Your task to perform on an android device: Show the shopping cart on costco. Image 0: 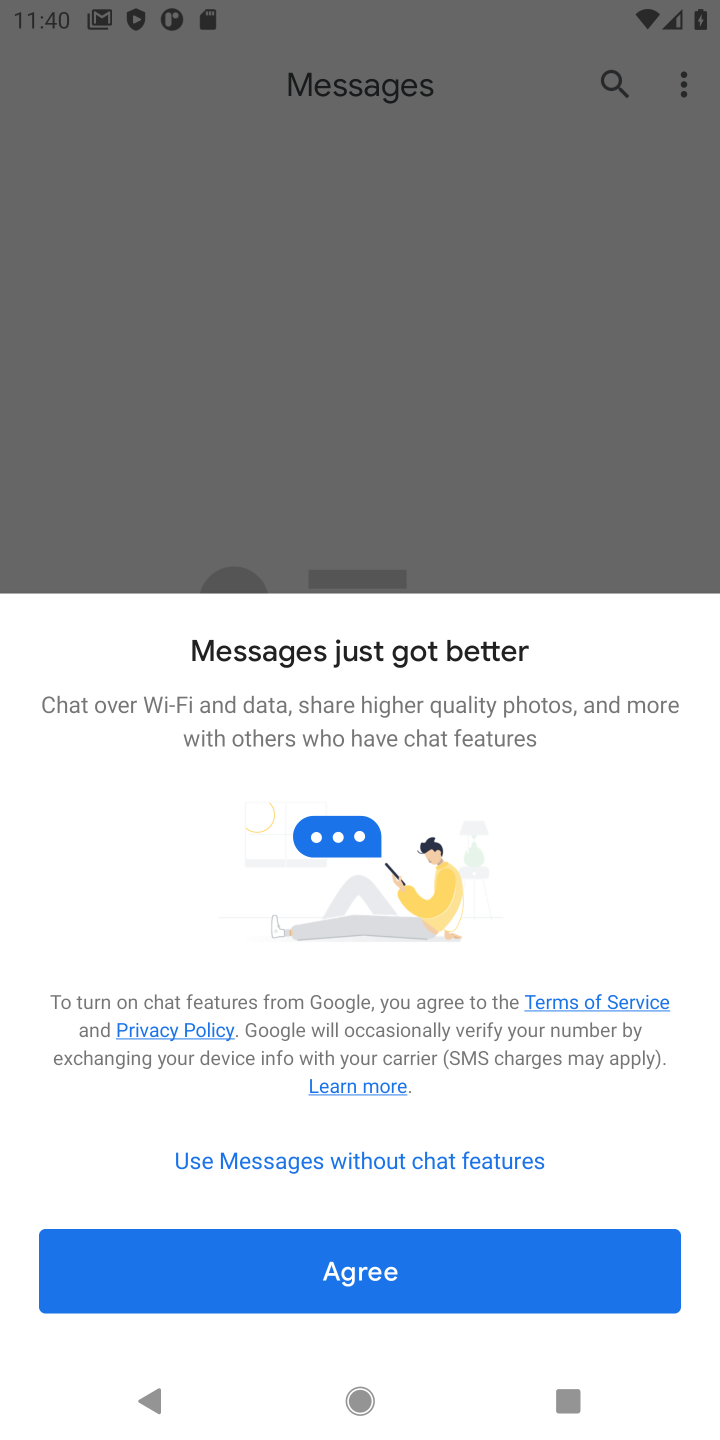
Step 0: press home button
Your task to perform on an android device: Show the shopping cart on costco. Image 1: 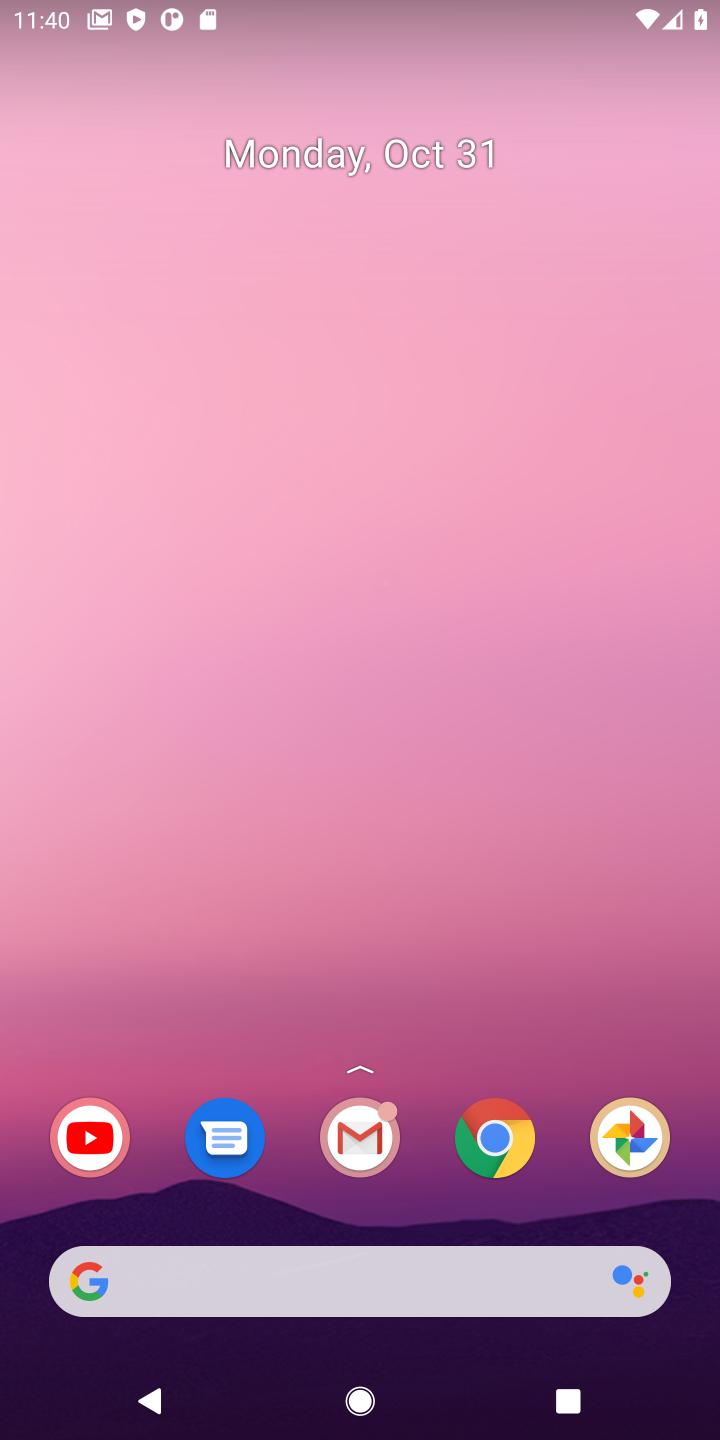
Step 1: click (506, 1136)
Your task to perform on an android device: Show the shopping cart on costco. Image 2: 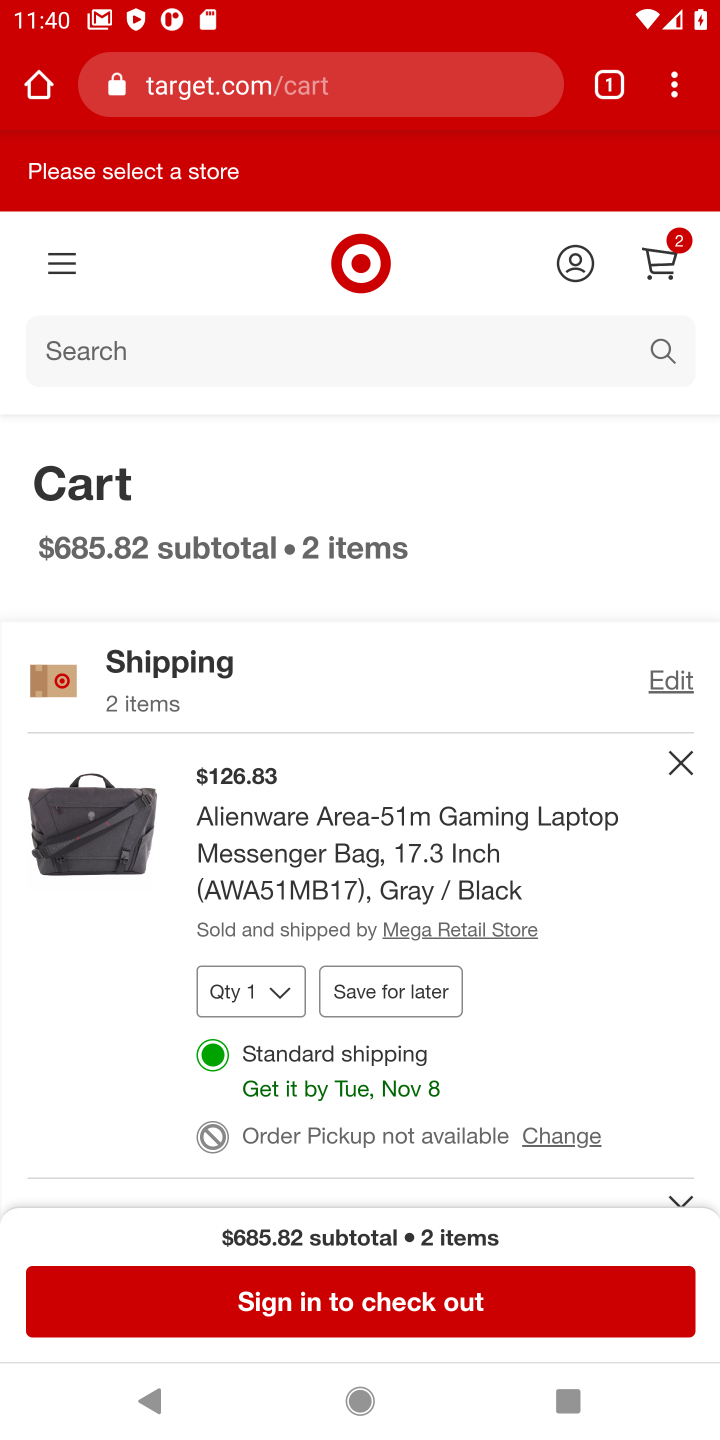
Step 2: click (341, 86)
Your task to perform on an android device: Show the shopping cart on costco. Image 3: 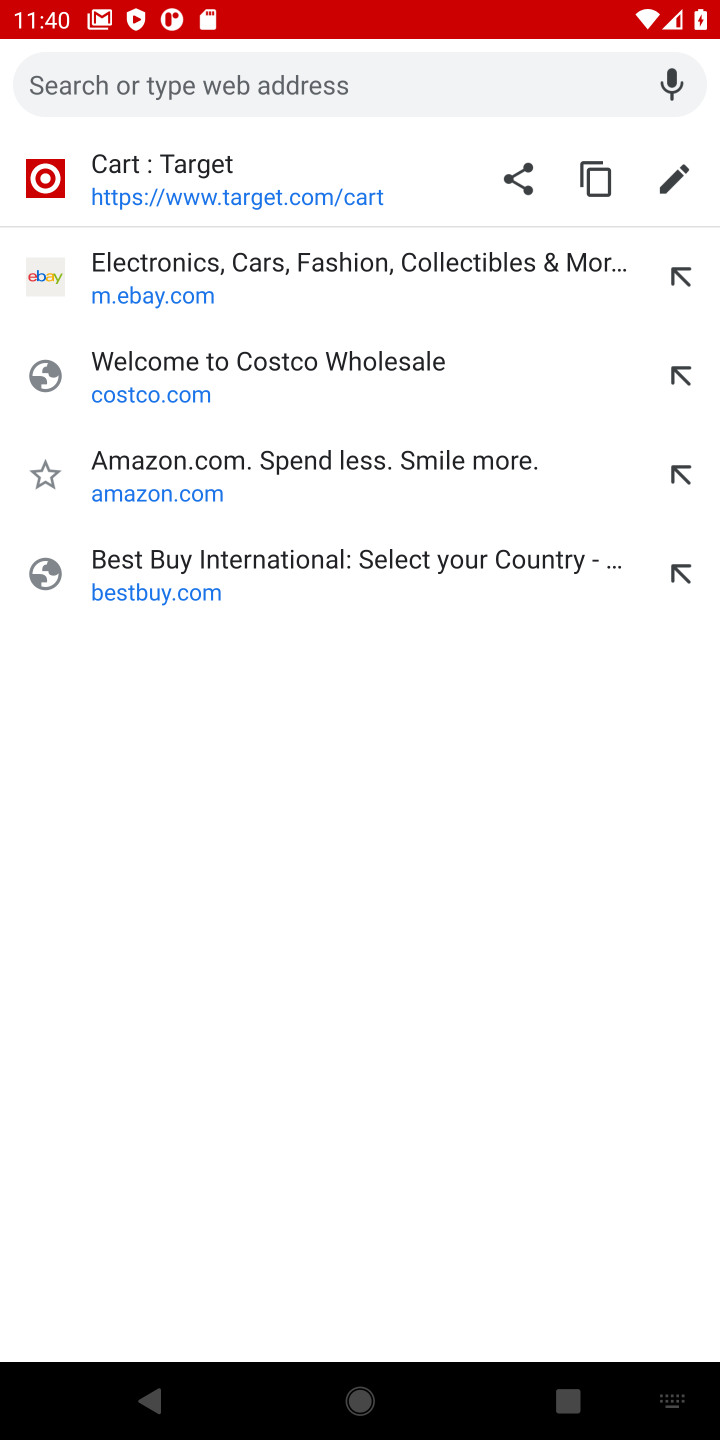
Step 3: type "costco"
Your task to perform on an android device: Show the shopping cart on costco. Image 4: 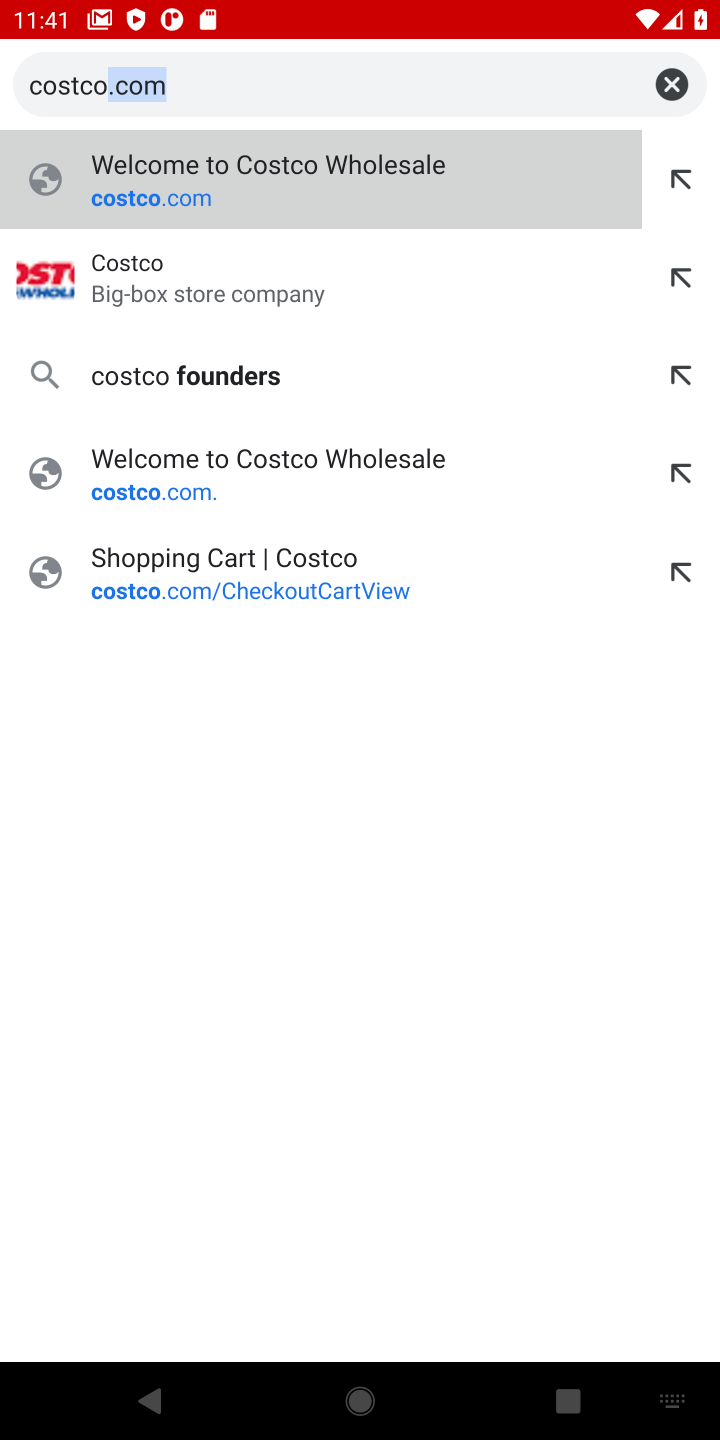
Step 4: click (173, 300)
Your task to perform on an android device: Show the shopping cart on costco. Image 5: 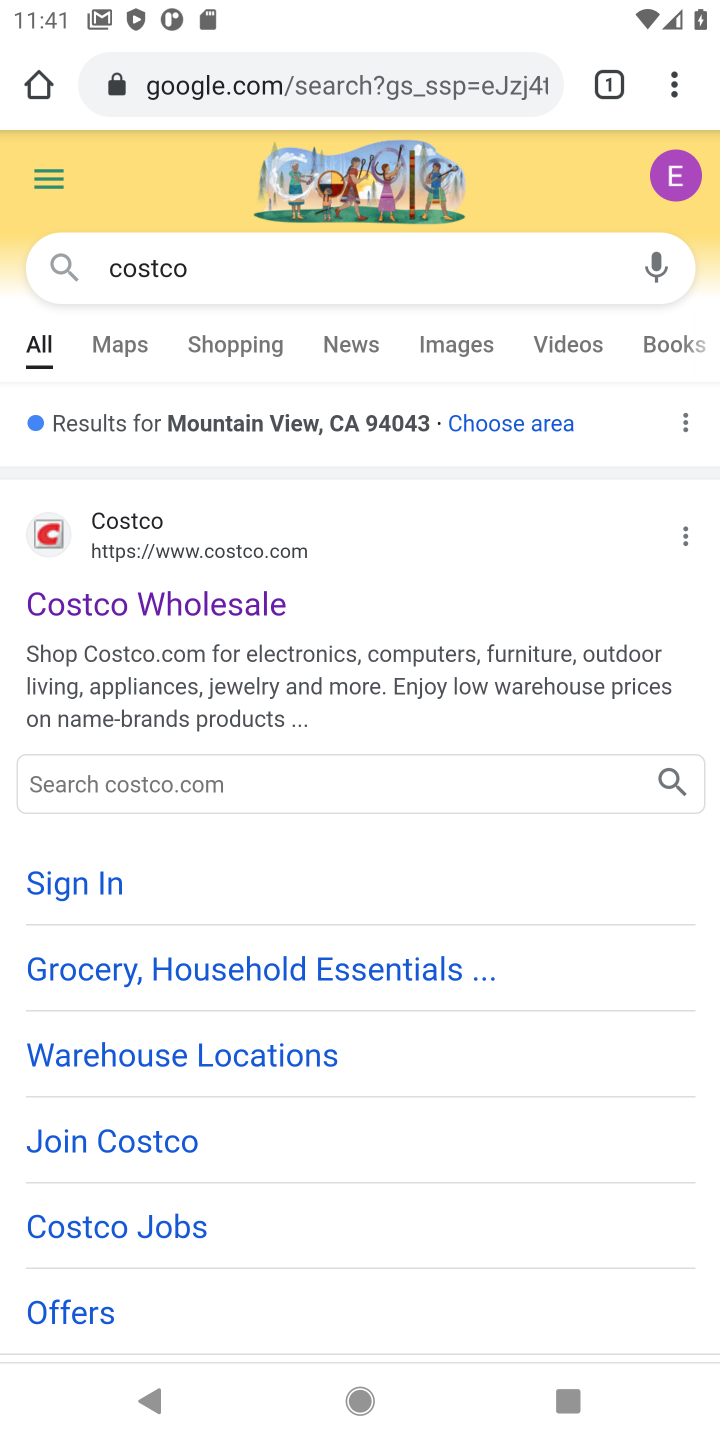
Step 5: click (39, 625)
Your task to perform on an android device: Show the shopping cart on costco. Image 6: 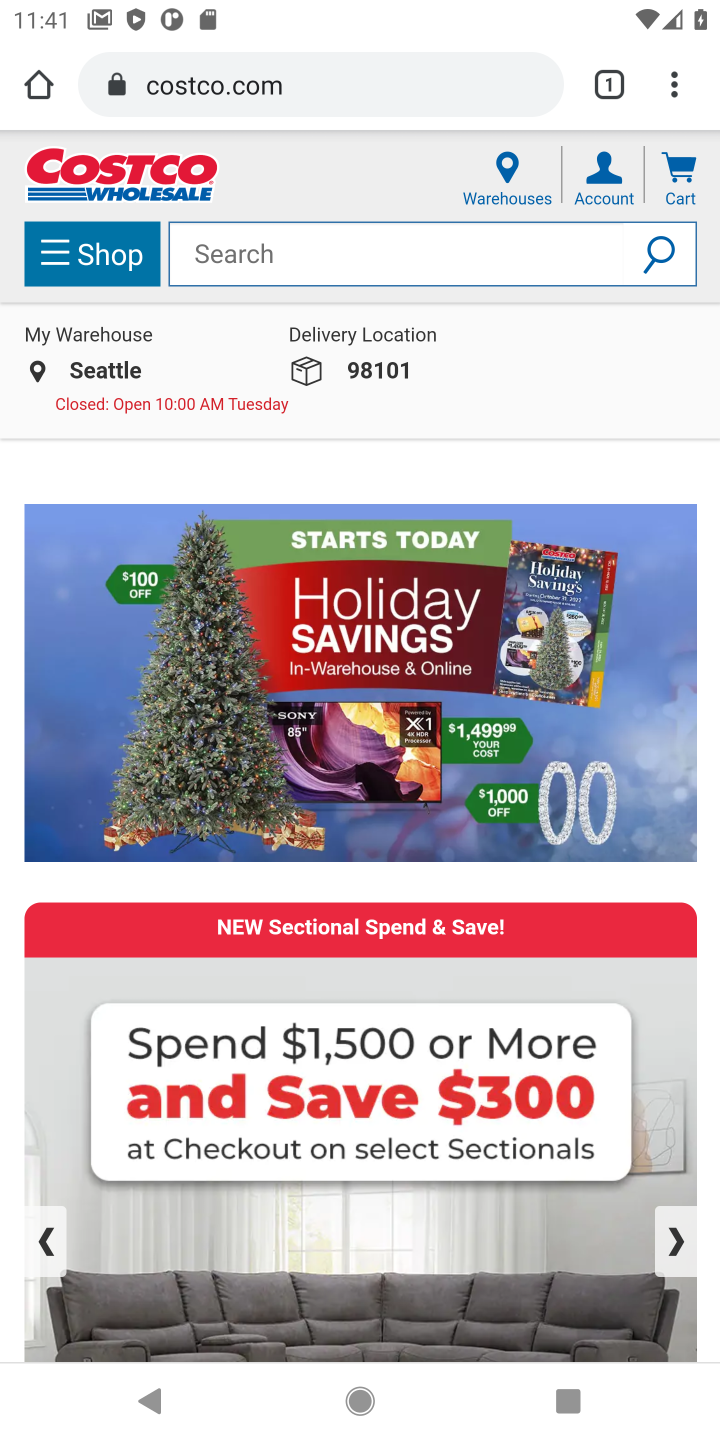
Step 6: click (673, 181)
Your task to perform on an android device: Show the shopping cart on costco. Image 7: 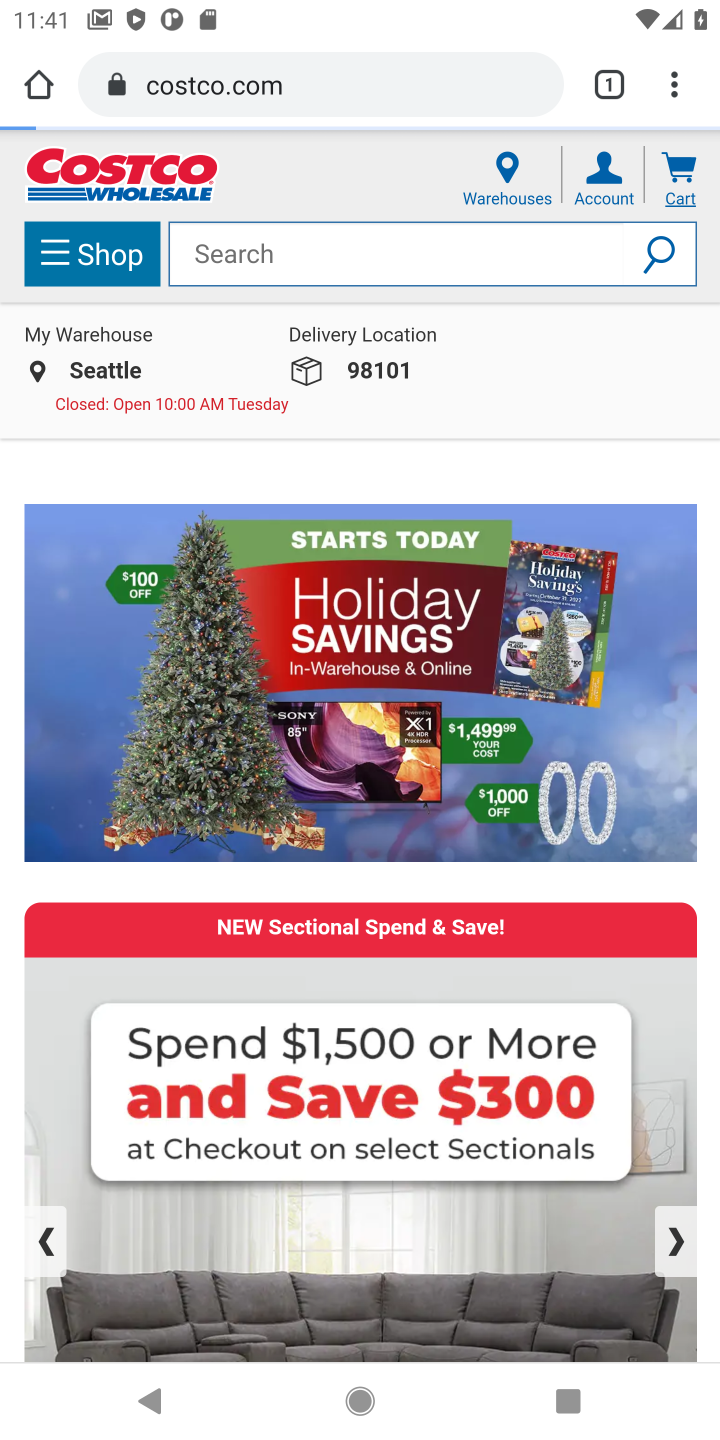
Step 7: click (678, 168)
Your task to perform on an android device: Show the shopping cart on costco. Image 8: 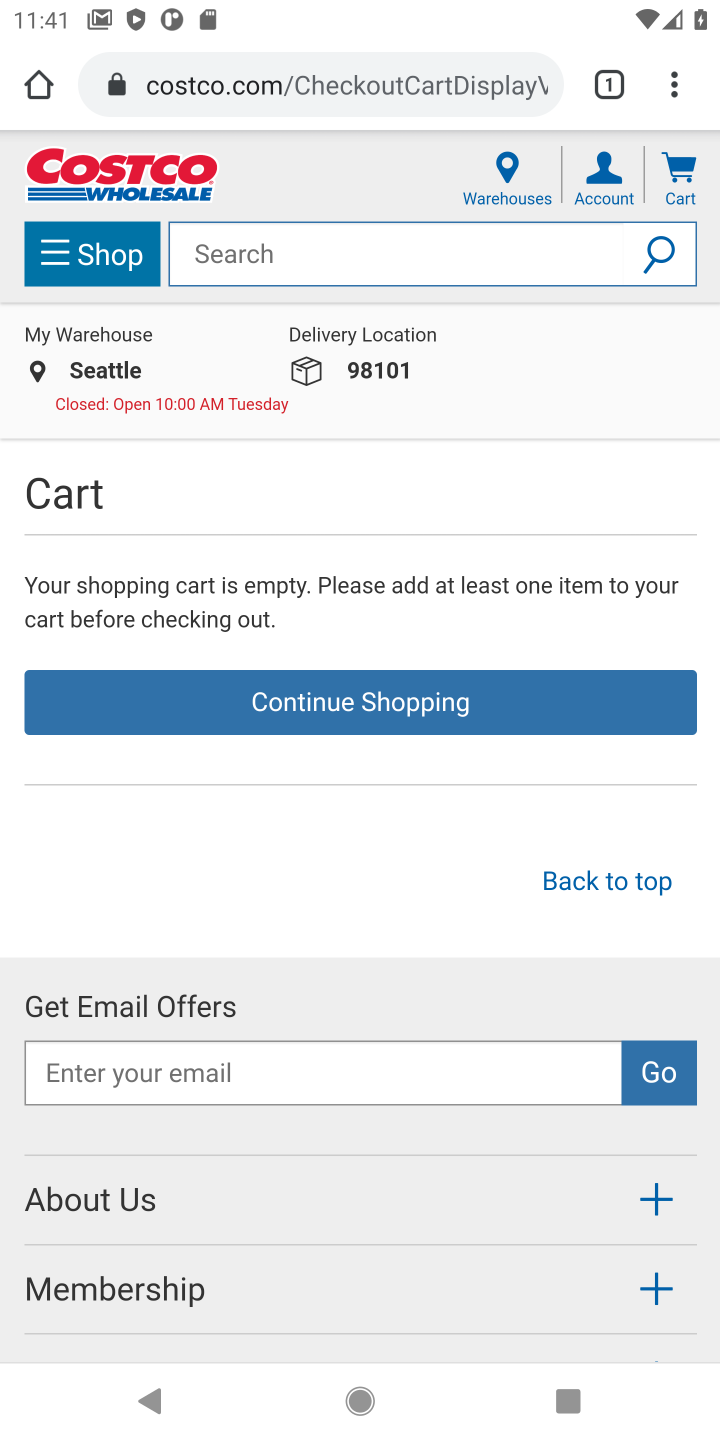
Step 8: task complete